Your task to perform on an android device: Go to battery settings Image 0: 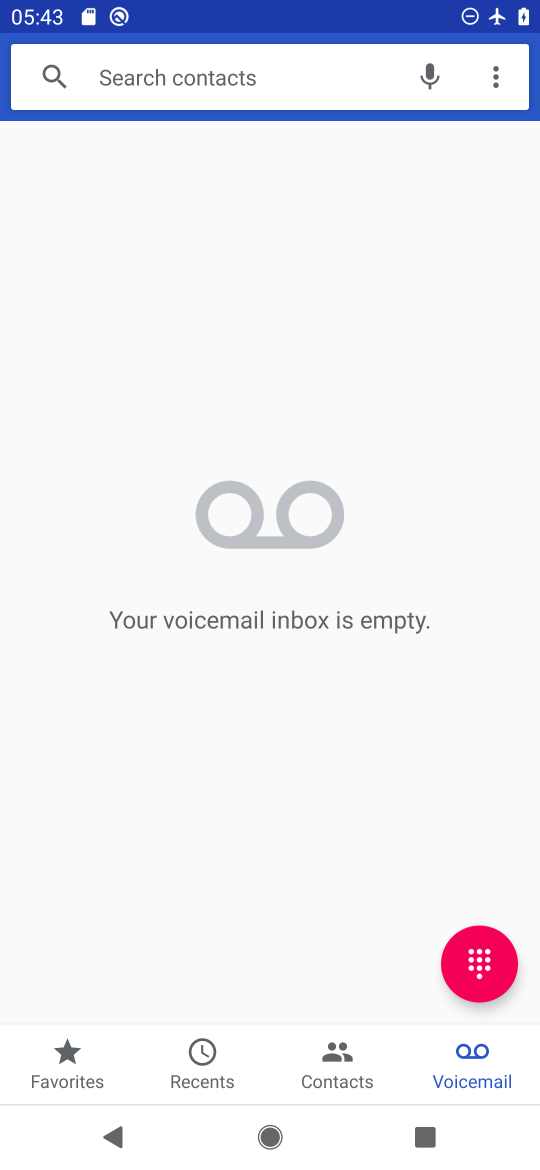
Step 0: press back button
Your task to perform on an android device: Go to battery settings Image 1: 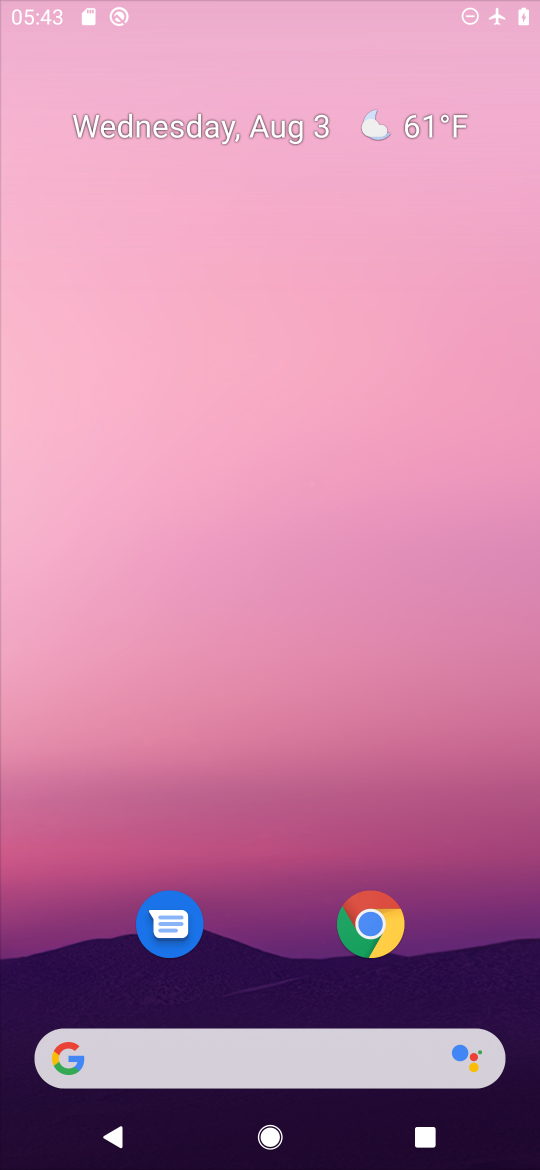
Step 1: press back button
Your task to perform on an android device: Go to battery settings Image 2: 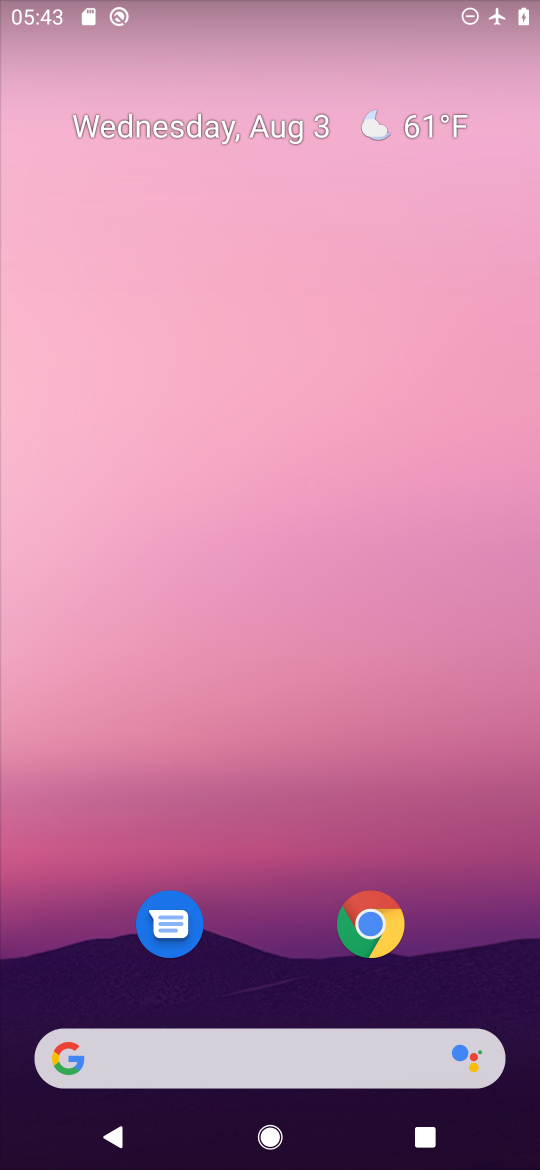
Step 2: drag from (207, 712) to (182, 209)
Your task to perform on an android device: Go to battery settings Image 3: 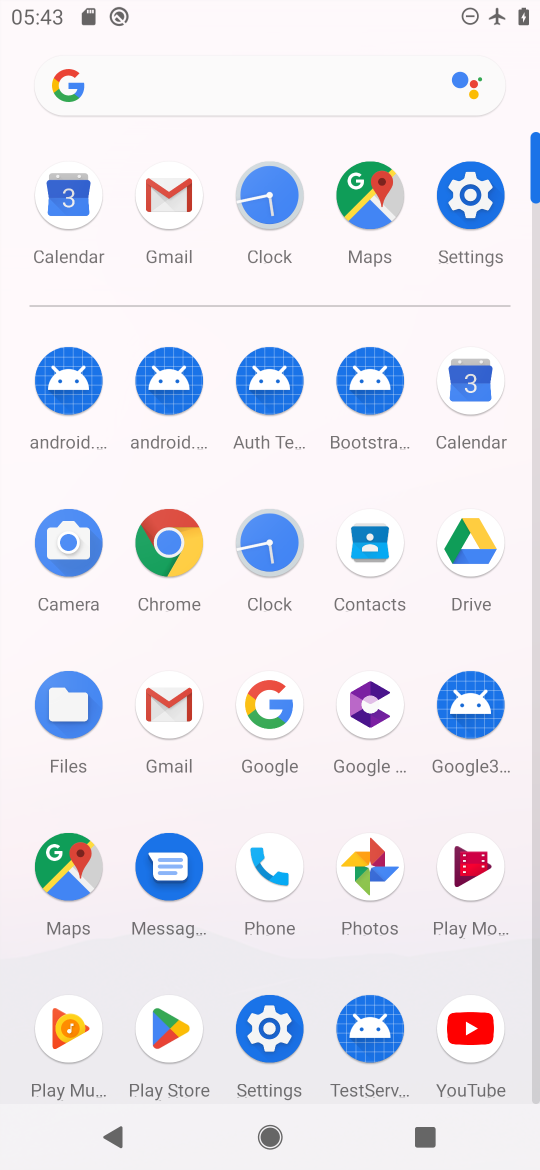
Step 3: click (480, 229)
Your task to perform on an android device: Go to battery settings Image 4: 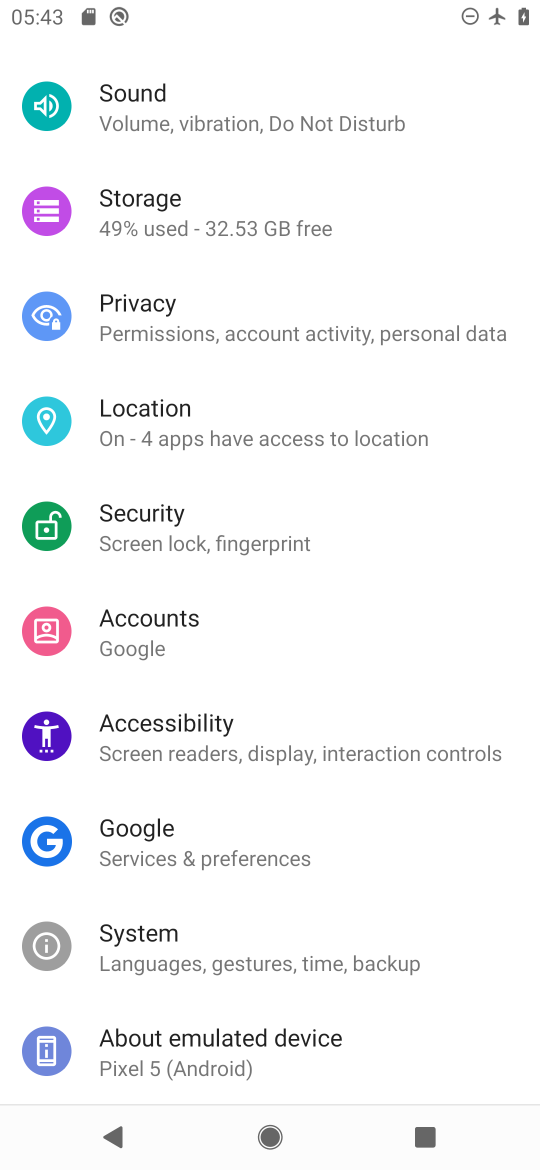
Step 4: drag from (255, 316) to (292, 761)
Your task to perform on an android device: Go to battery settings Image 5: 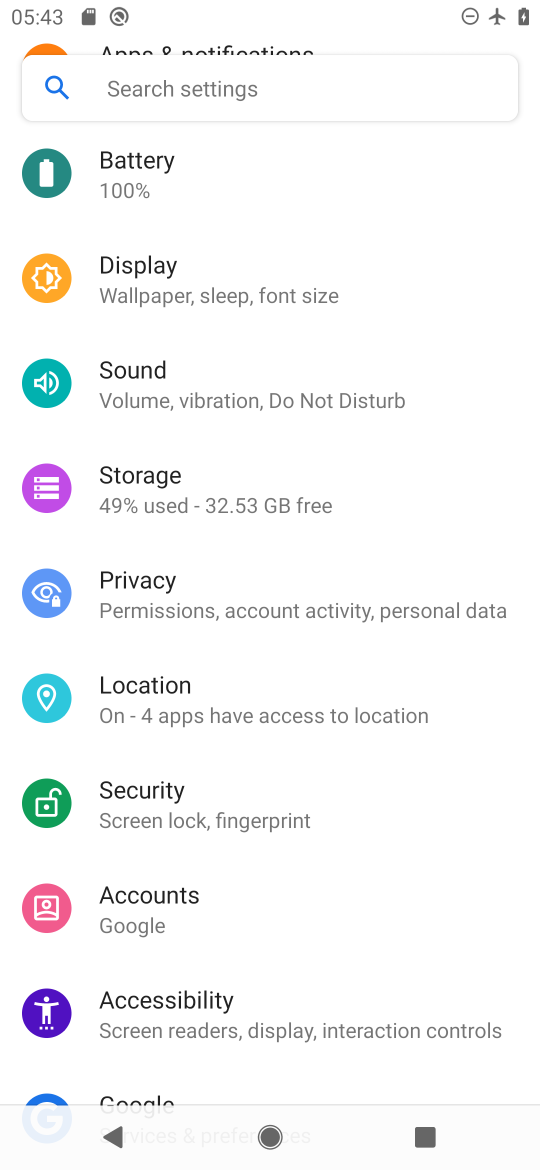
Step 5: click (197, 195)
Your task to perform on an android device: Go to battery settings Image 6: 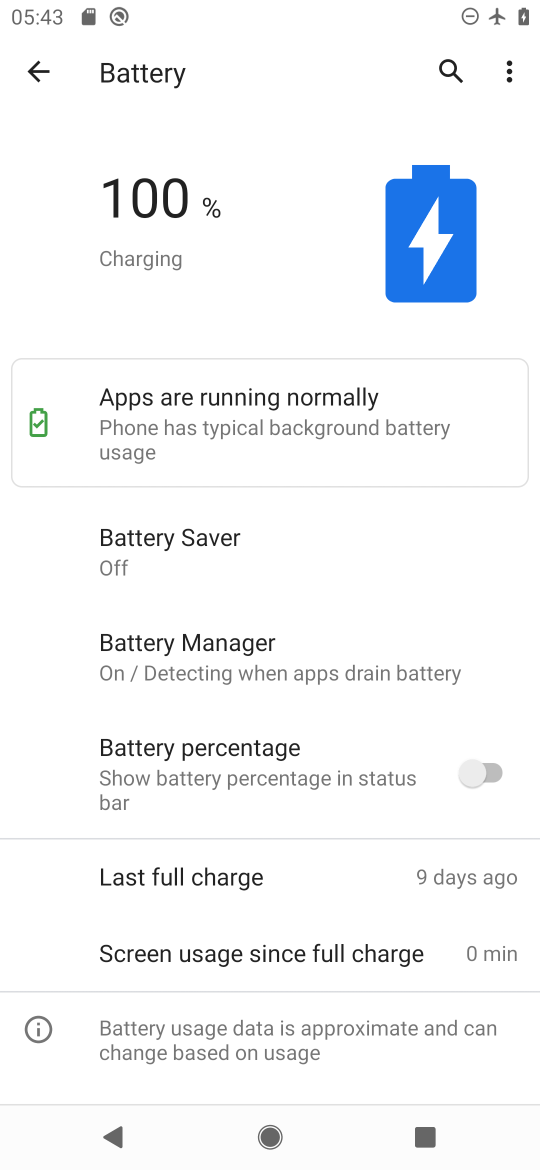
Step 6: task complete